Your task to perform on an android device: Open internet settings Image 0: 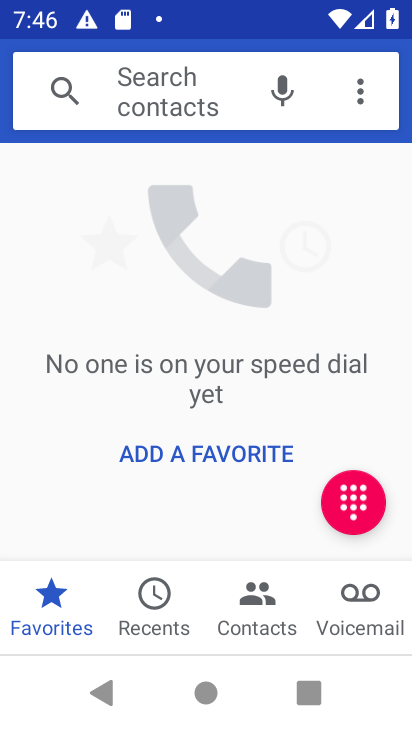
Step 0: task complete